Your task to perform on an android device: Open sound settings Image 0: 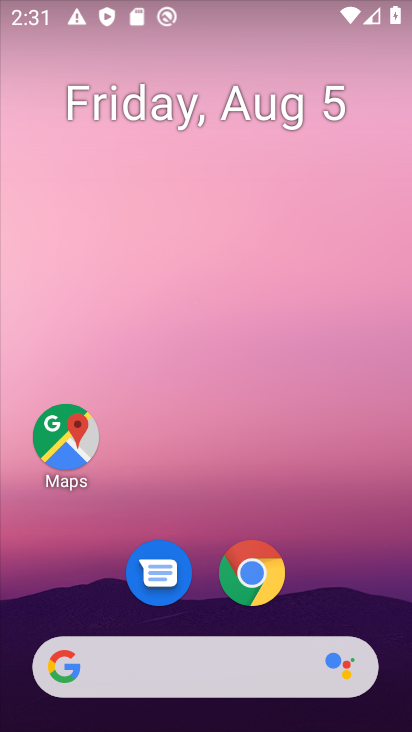
Step 0: drag from (390, 595) to (324, 240)
Your task to perform on an android device: Open sound settings Image 1: 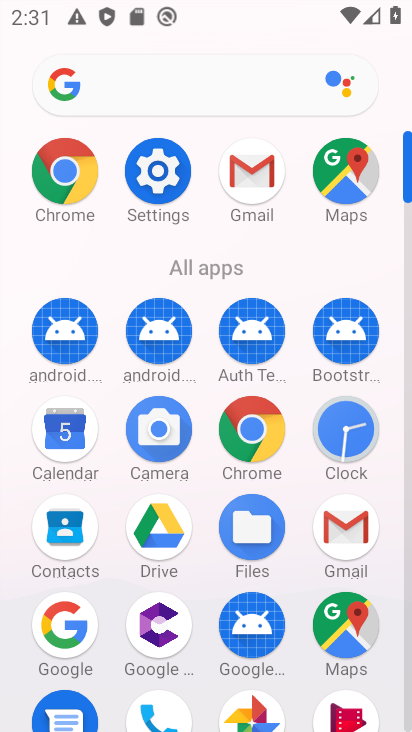
Step 1: click (160, 168)
Your task to perform on an android device: Open sound settings Image 2: 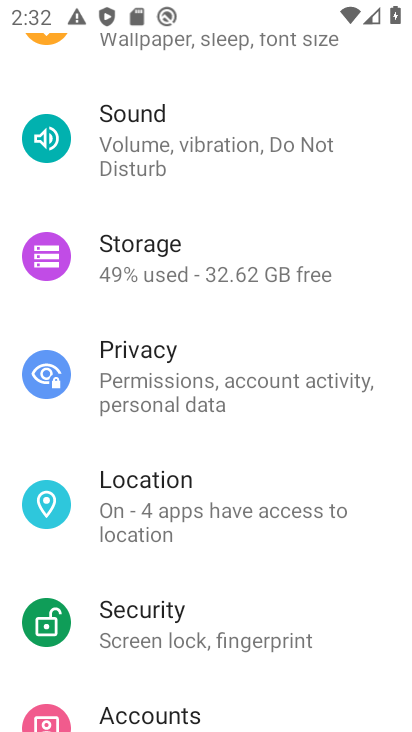
Step 2: click (183, 163)
Your task to perform on an android device: Open sound settings Image 3: 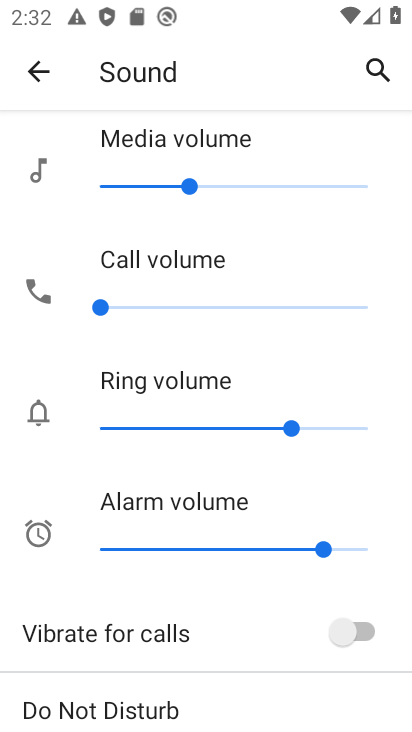
Step 3: task complete